Your task to perform on an android device: Open wifi settings Image 0: 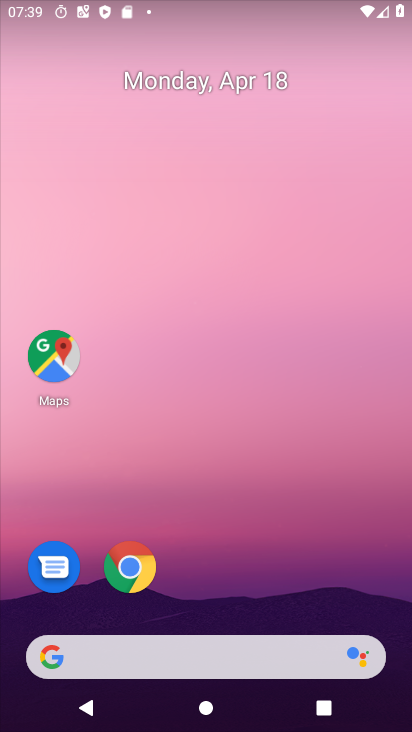
Step 0: drag from (239, 576) to (207, 68)
Your task to perform on an android device: Open wifi settings Image 1: 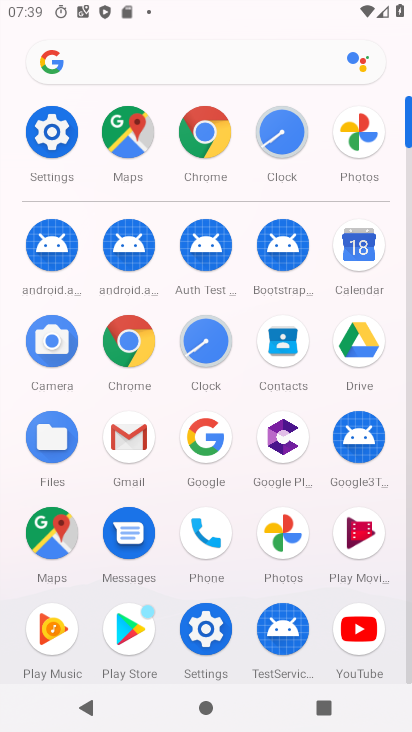
Step 1: drag from (290, 6) to (95, 451)
Your task to perform on an android device: Open wifi settings Image 2: 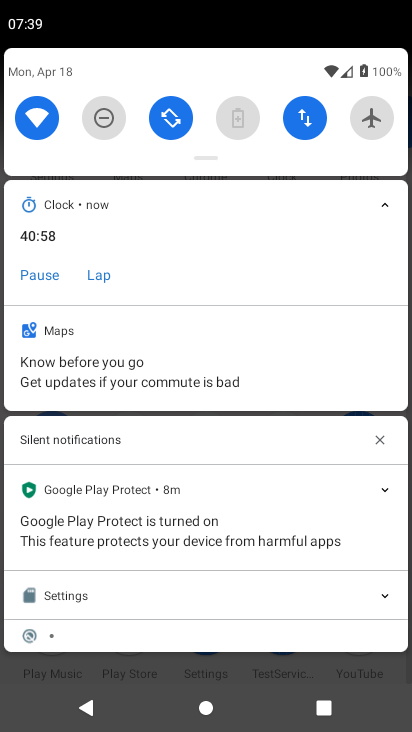
Step 2: click (41, 124)
Your task to perform on an android device: Open wifi settings Image 3: 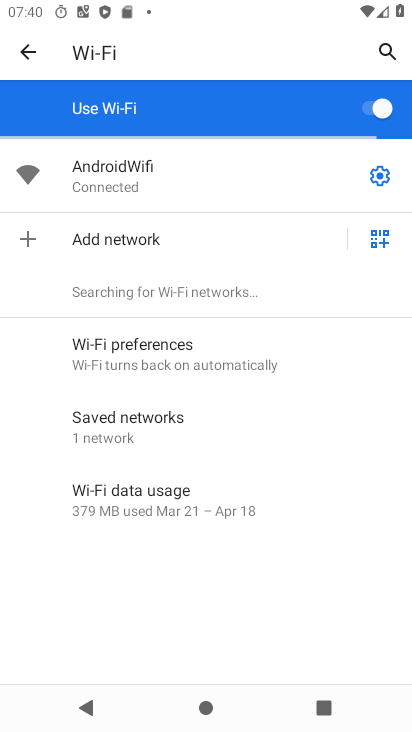
Step 3: task complete